Your task to perform on an android device: toggle translation in the chrome app Image 0: 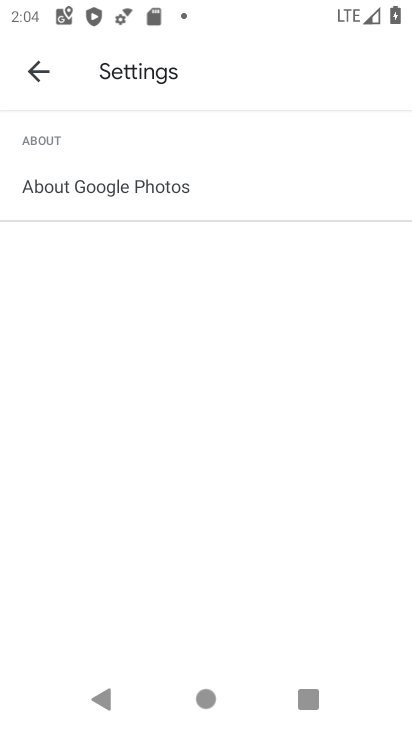
Step 0: press back button
Your task to perform on an android device: toggle translation in the chrome app Image 1: 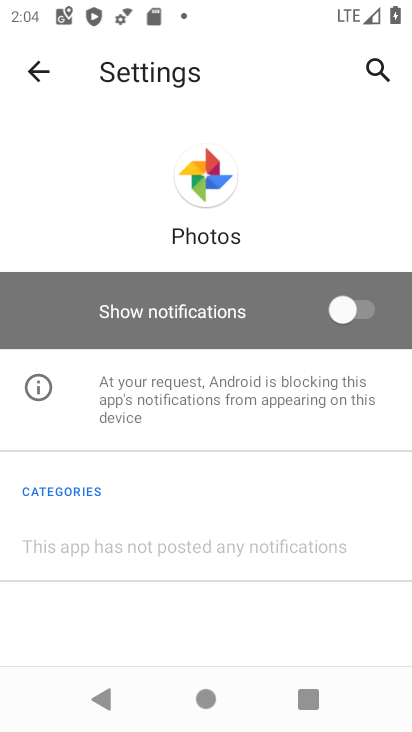
Step 1: press home button
Your task to perform on an android device: toggle translation in the chrome app Image 2: 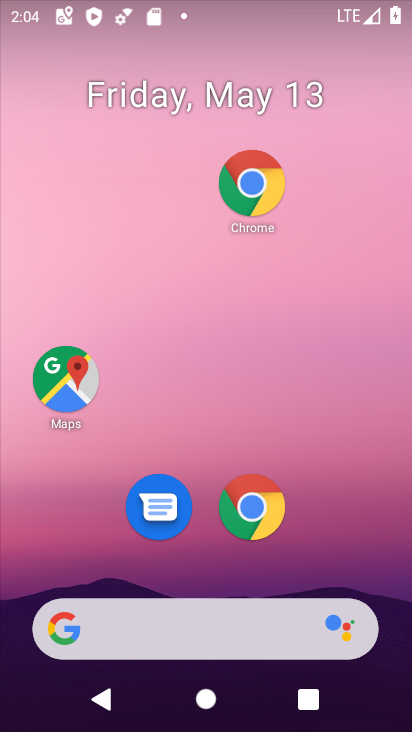
Step 2: drag from (379, 582) to (246, 126)
Your task to perform on an android device: toggle translation in the chrome app Image 3: 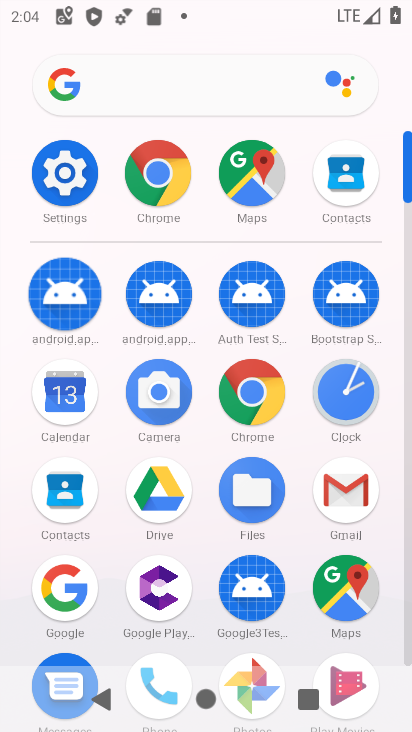
Step 3: click (154, 170)
Your task to perform on an android device: toggle translation in the chrome app Image 4: 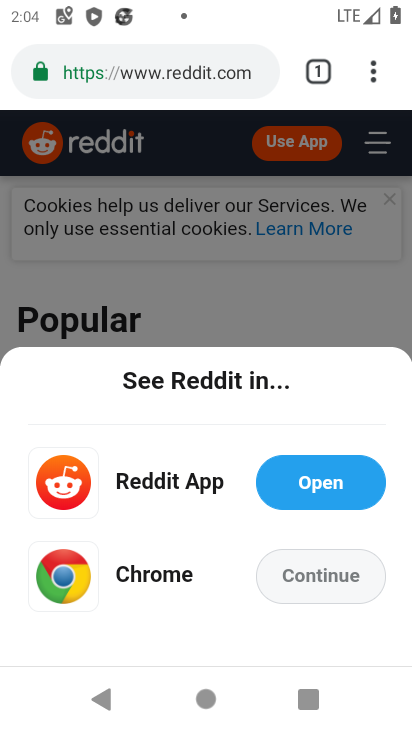
Step 4: drag from (371, 73) to (108, 493)
Your task to perform on an android device: toggle translation in the chrome app Image 5: 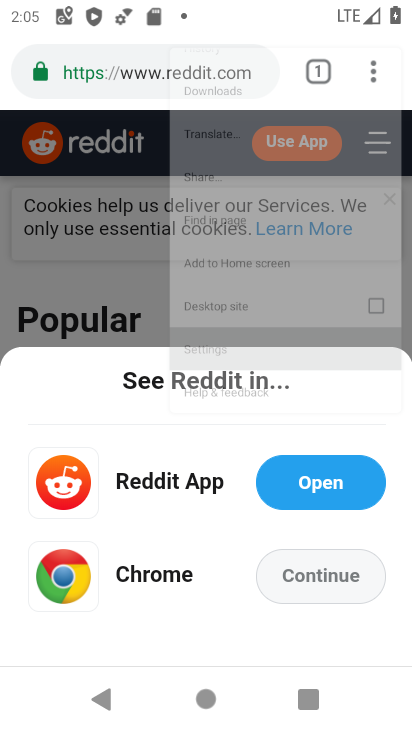
Step 5: click (118, 488)
Your task to perform on an android device: toggle translation in the chrome app Image 6: 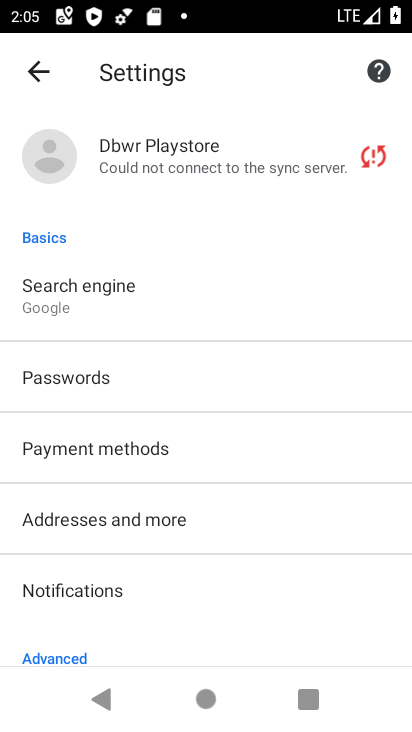
Step 6: click (121, 318)
Your task to perform on an android device: toggle translation in the chrome app Image 7: 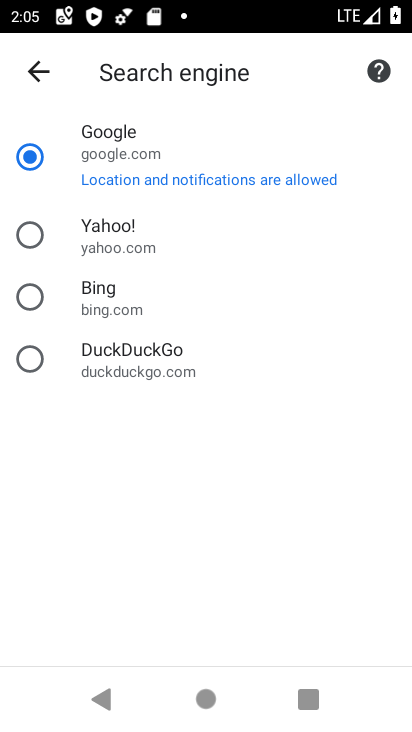
Step 7: drag from (185, 341) to (198, 269)
Your task to perform on an android device: toggle translation in the chrome app Image 8: 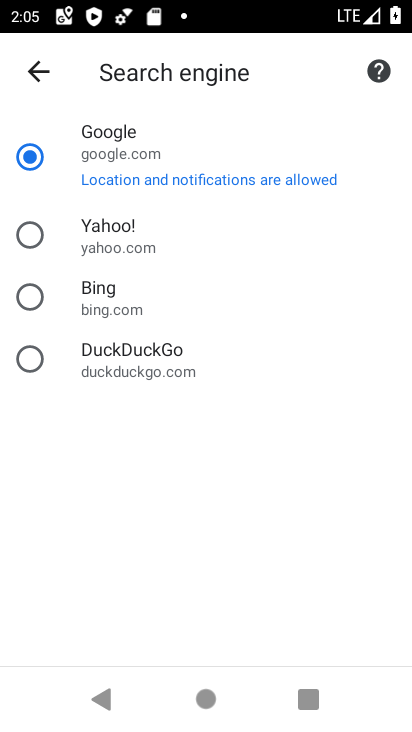
Step 8: drag from (110, 467) to (105, 187)
Your task to perform on an android device: toggle translation in the chrome app Image 9: 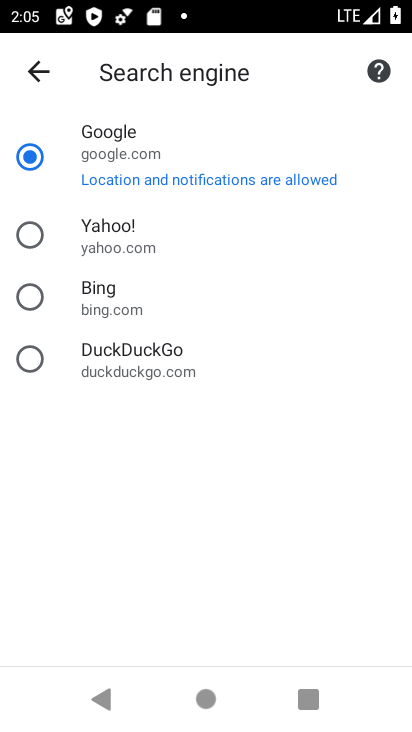
Step 9: click (178, 280)
Your task to perform on an android device: toggle translation in the chrome app Image 10: 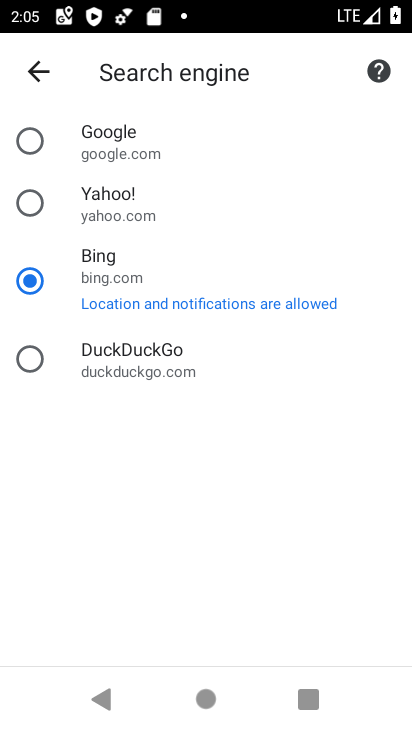
Step 10: click (37, 75)
Your task to perform on an android device: toggle translation in the chrome app Image 11: 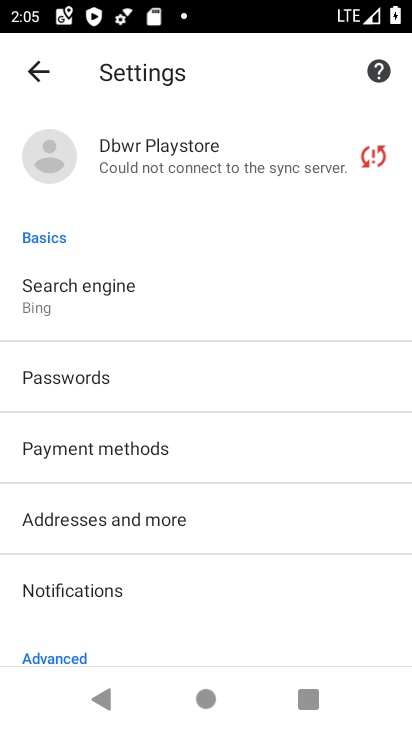
Step 11: drag from (154, 537) to (166, 269)
Your task to perform on an android device: toggle translation in the chrome app Image 12: 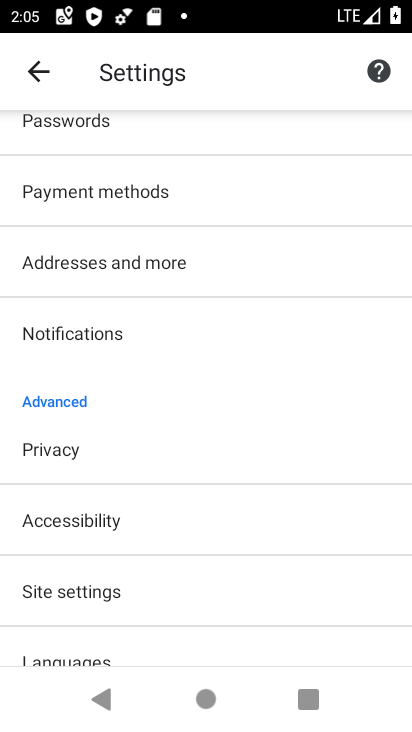
Step 12: drag from (140, 577) to (134, 255)
Your task to perform on an android device: toggle translation in the chrome app Image 13: 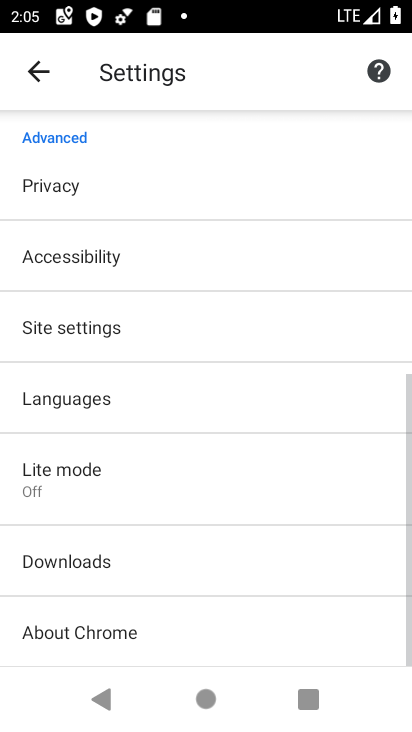
Step 13: drag from (148, 543) to (180, 309)
Your task to perform on an android device: toggle translation in the chrome app Image 14: 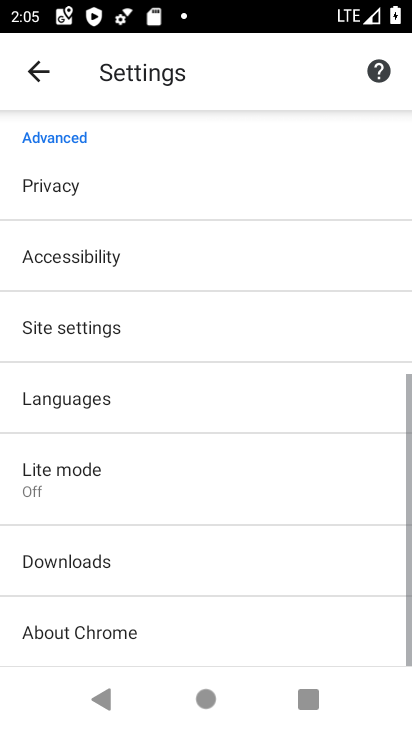
Step 14: click (184, 293)
Your task to perform on an android device: toggle translation in the chrome app Image 15: 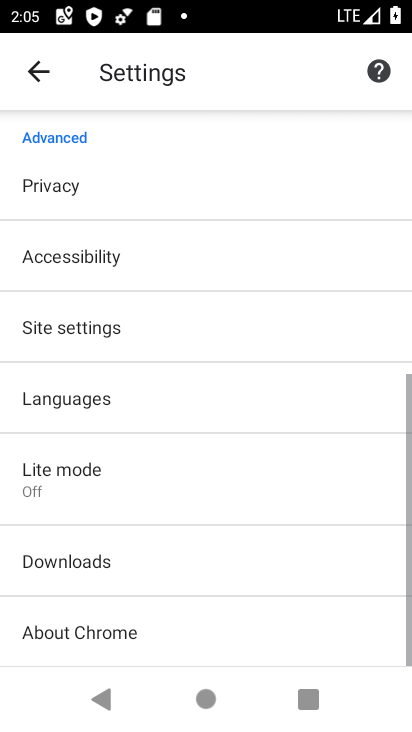
Step 15: drag from (164, 603) to (163, 216)
Your task to perform on an android device: toggle translation in the chrome app Image 16: 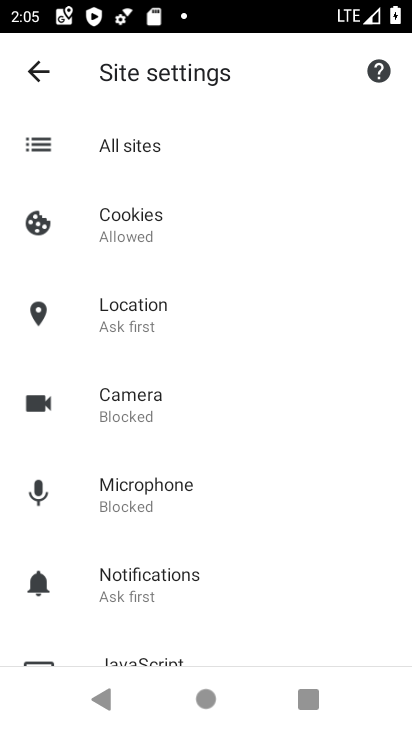
Step 16: click (35, 74)
Your task to perform on an android device: toggle translation in the chrome app Image 17: 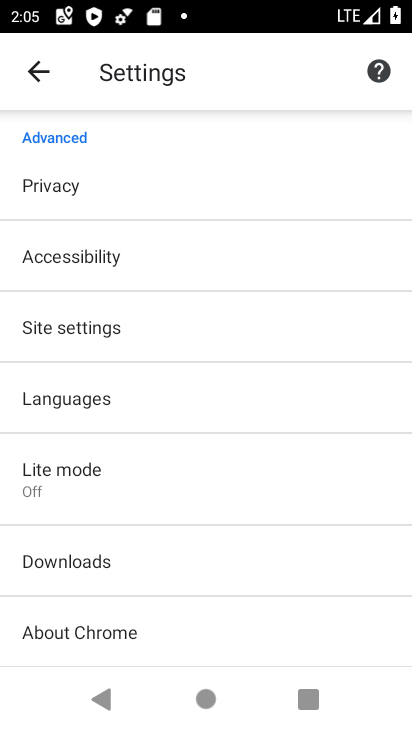
Step 17: click (59, 403)
Your task to perform on an android device: toggle translation in the chrome app Image 18: 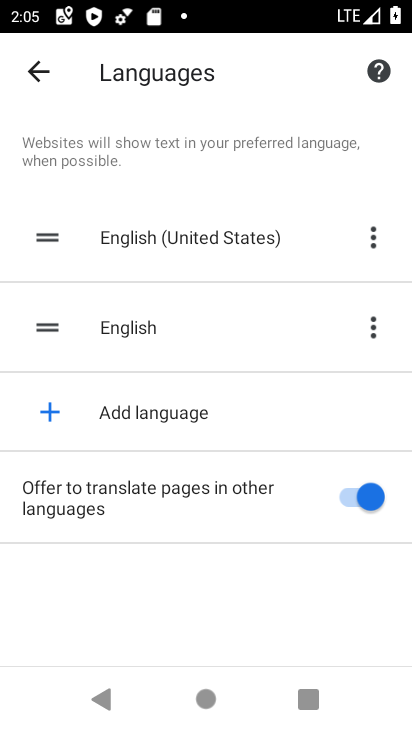
Step 18: click (372, 497)
Your task to perform on an android device: toggle translation in the chrome app Image 19: 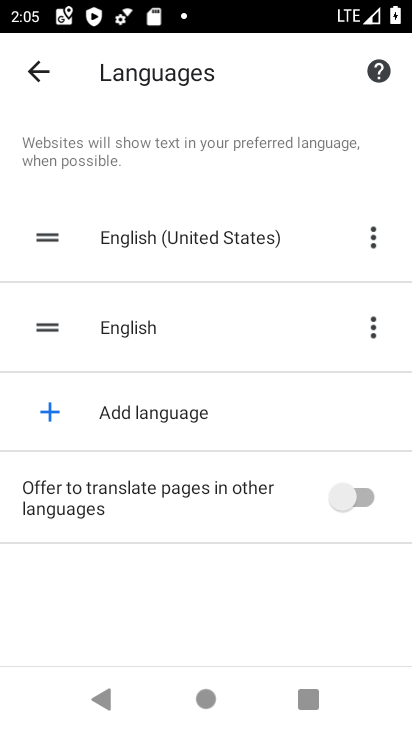
Step 19: task complete